Your task to perform on an android device: Search for seafood restaurants on Google Maps Image 0: 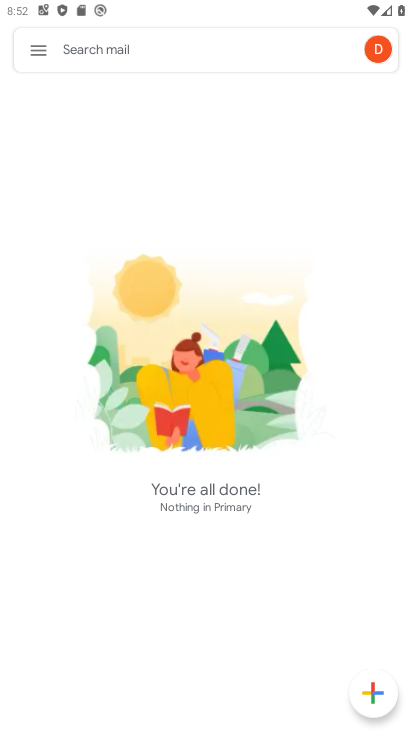
Step 0: press home button
Your task to perform on an android device: Search for seafood restaurants on Google Maps Image 1: 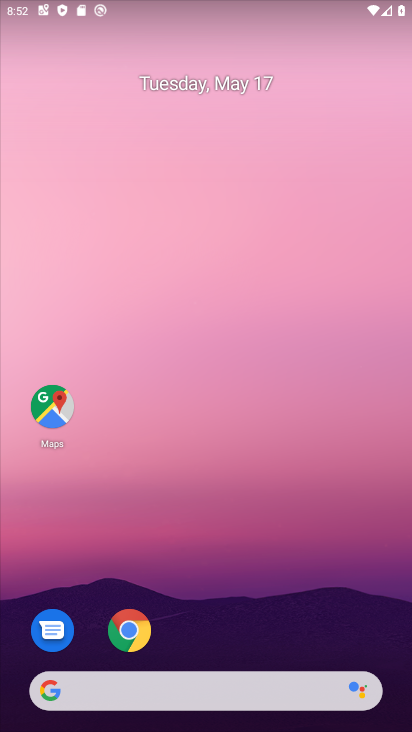
Step 1: click (44, 400)
Your task to perform on an android device: Search for seafood restaurants on Google Maps Image 2: 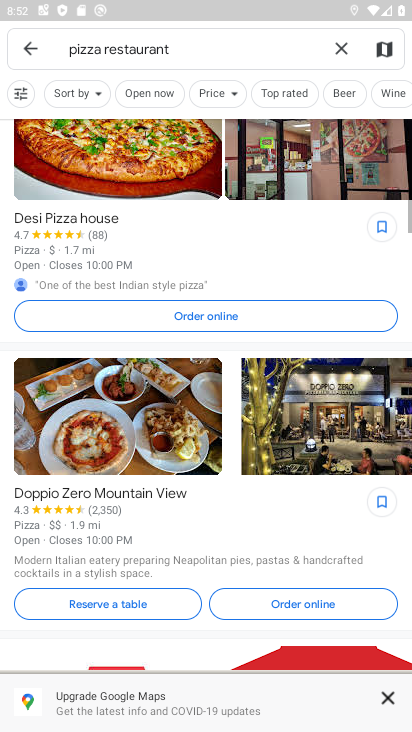
Step 2: click (344, 44)
Your task to perform on an android device: Search for seafood restaurants on Google Maps Image 3: 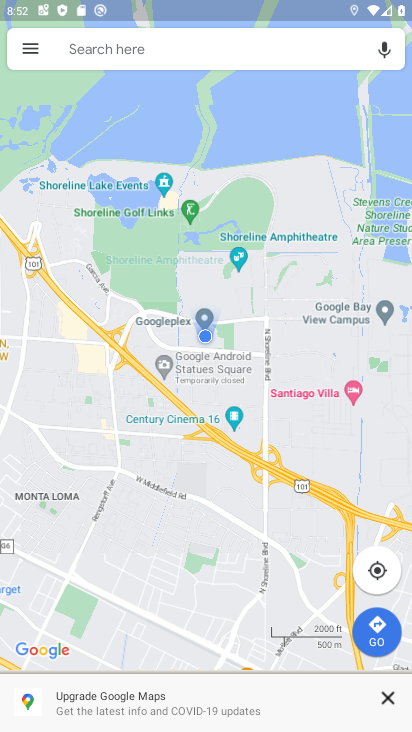
Step 3: click (254, 48)
Your task to perform on an android device: Search for seafood restaurants on Google Maps Image 4: 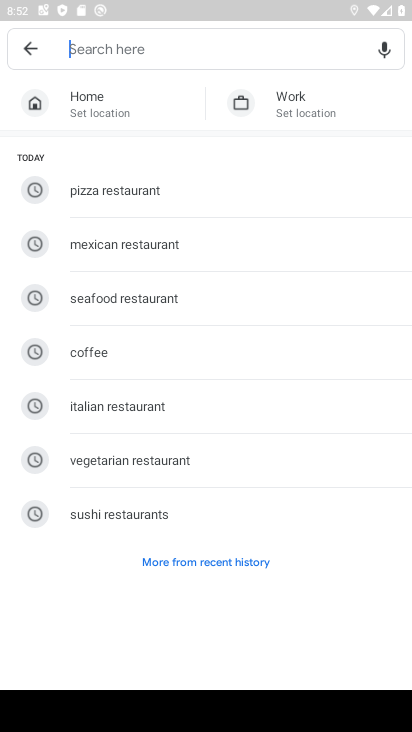
Step 4: click (128, 295)
Your task to perform on an android device: Search for seafood restaurants on Google Maps Image 5: 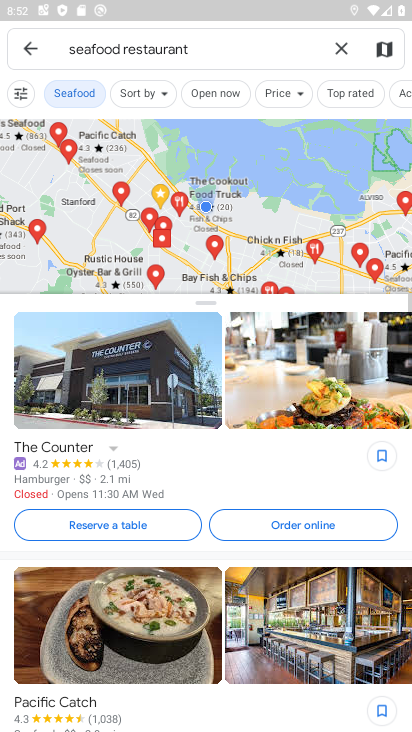
Step 5: task complete